Your task to perform on an android device: add a contact Image 0: 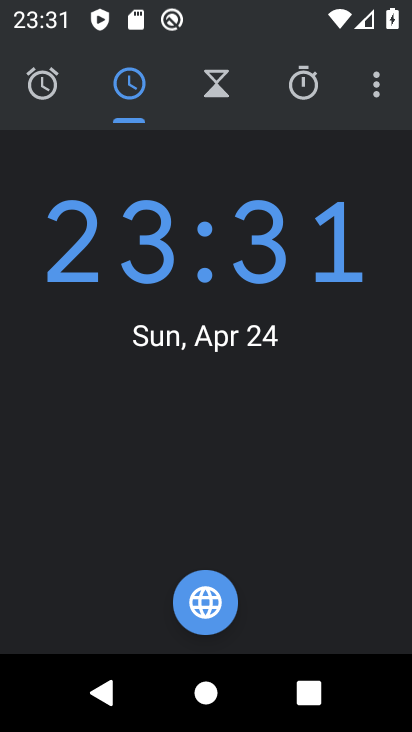
Step 0: press home button
Your task to perform on an android device: add a contact Image 1: 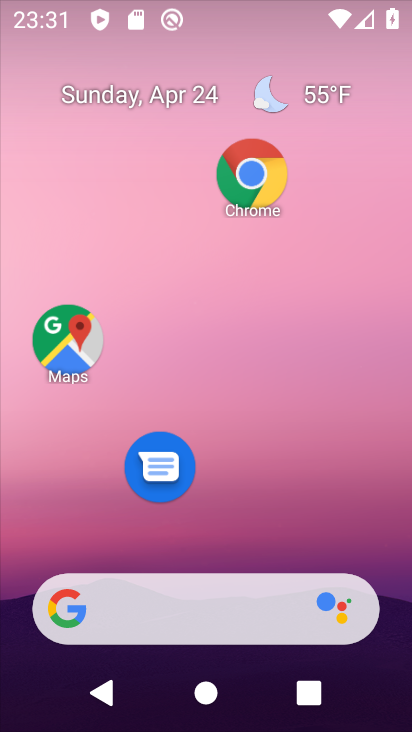
Step 1: drag from (240, 534) to (233, 79)
Your task to perform on an android device: add a contact Image 2: 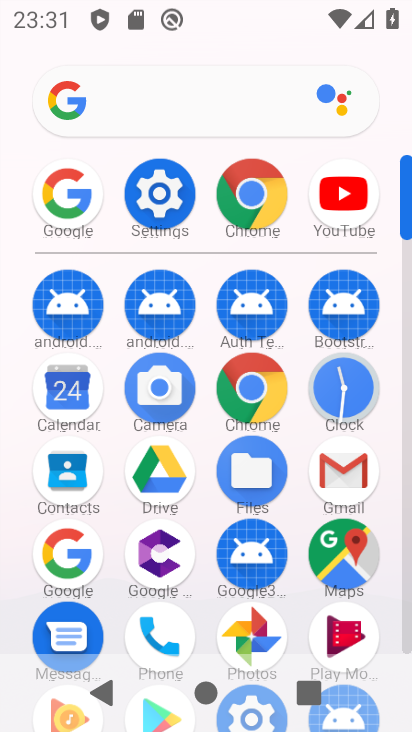
Step 2: click (64, 479)
Your task to perform on an android device: add a contact Image 3: 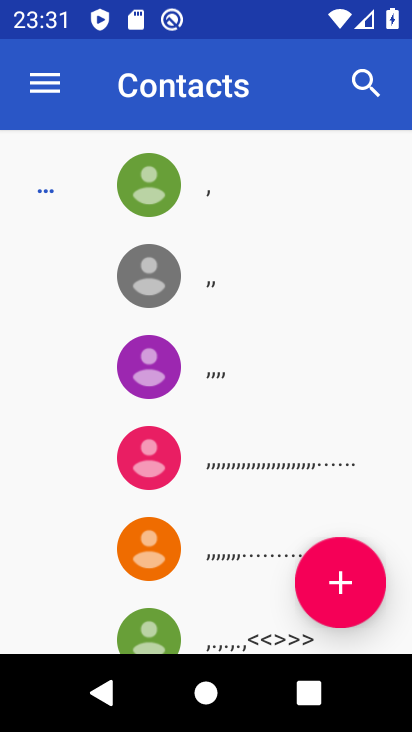
Step 3: click (339, 584)
Your task to perform on an android device: add a contact Image 4: 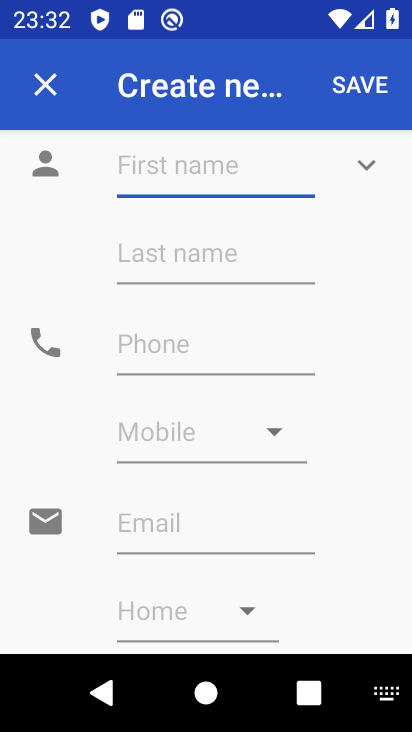
Step 4: type "hgddg"
Your task to perform on an android device: add a contact Image 5: 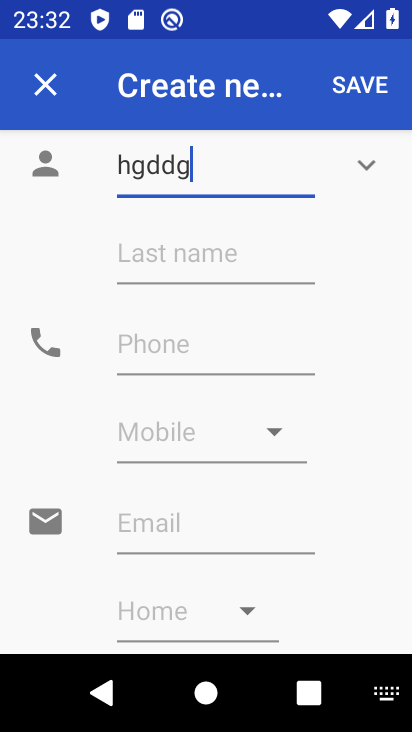
Step 5: click (346, 93)
Your task to perform on an android device: add a contact Image 6: 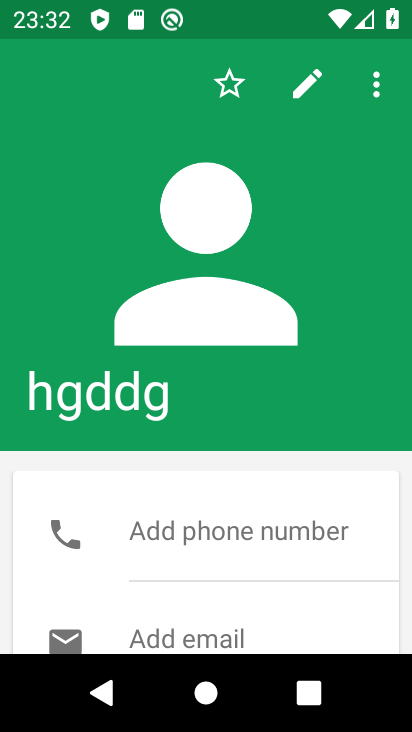
Step 6: task complete